Your task to perform on an android device: Open CNN.com Image 0: 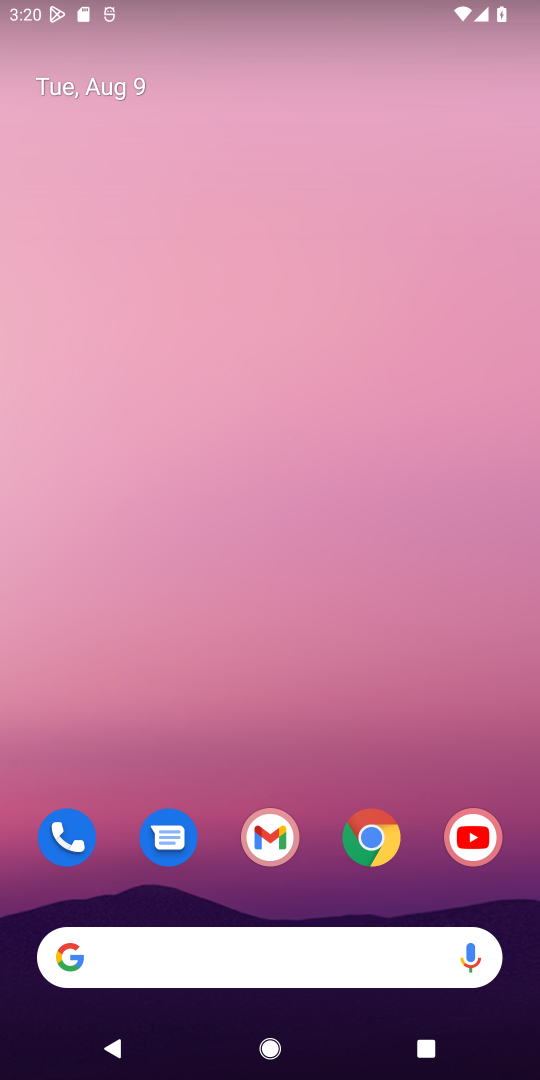
Step 0: drag from (265, 792) to (274, 109)
Your task to perform on an android device: Open CNN.com Image 1: 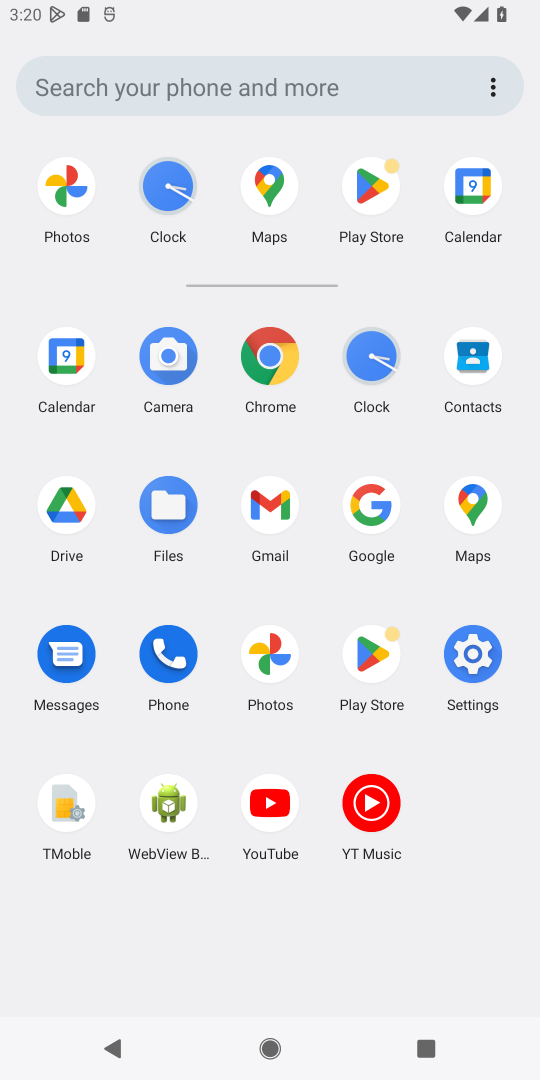
Step 1: click (251, 368)
Your task to perform on an android device: Open CNN.com Image 2: 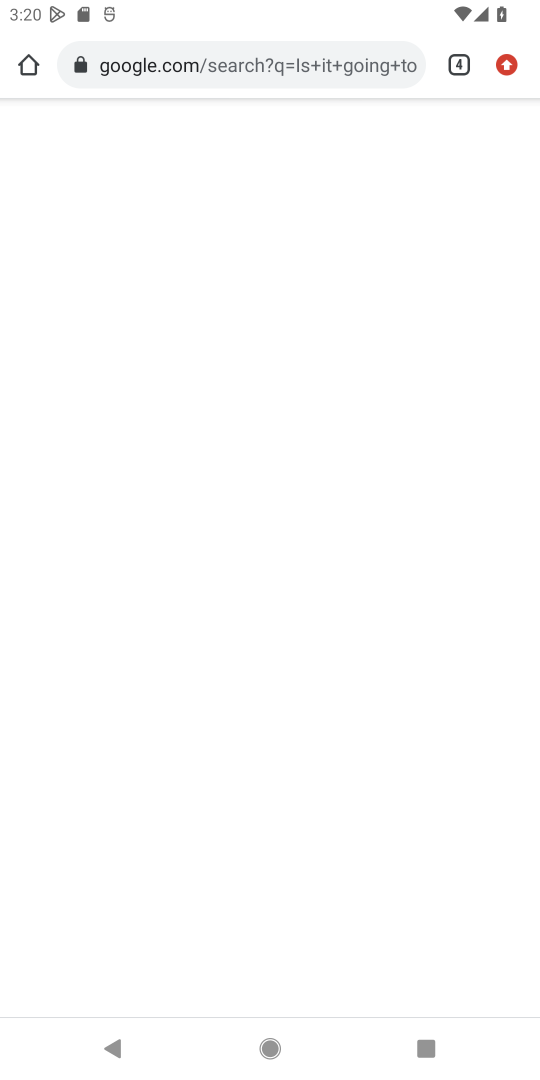
Step 2: click (506, 51)
Your task to perform on an android device: Open CNN.com Image 3: 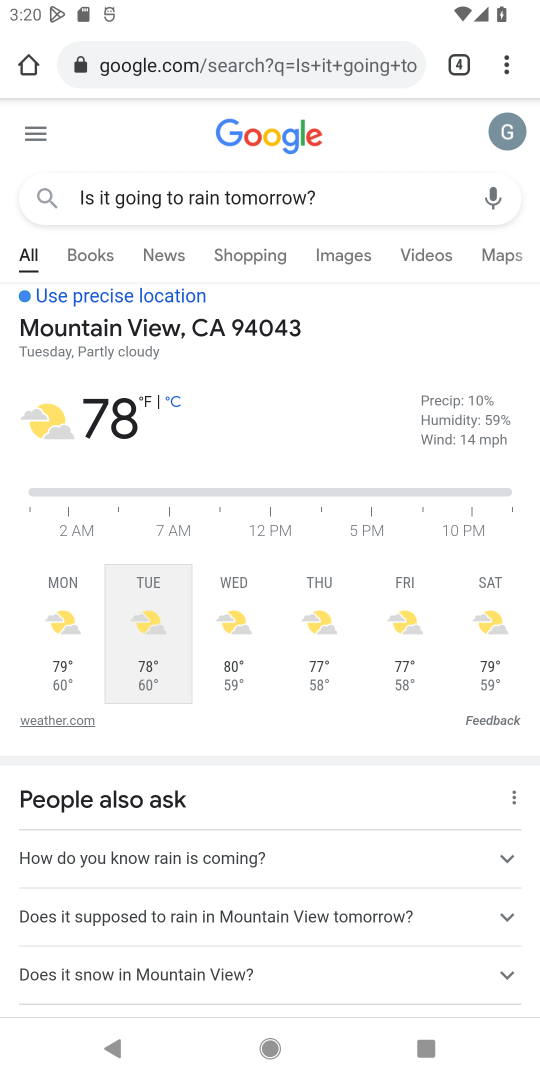
Step 3: click (503, 64)
Your task to perform on an android device: Open CNN.com Image 4: 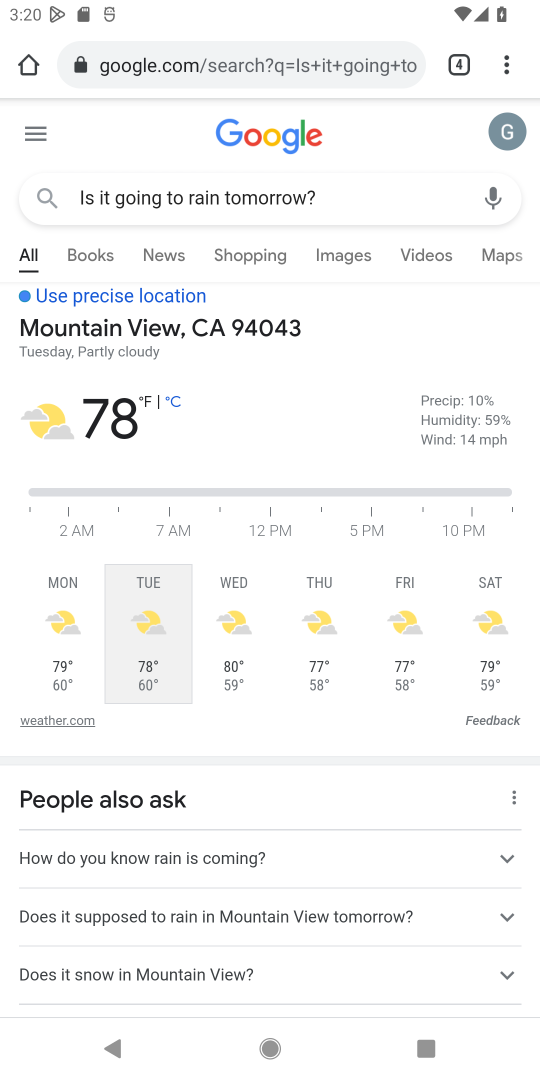
Step 4: click (509, 64)
Your task to perform on an android device: Open CNN.com Image 5: 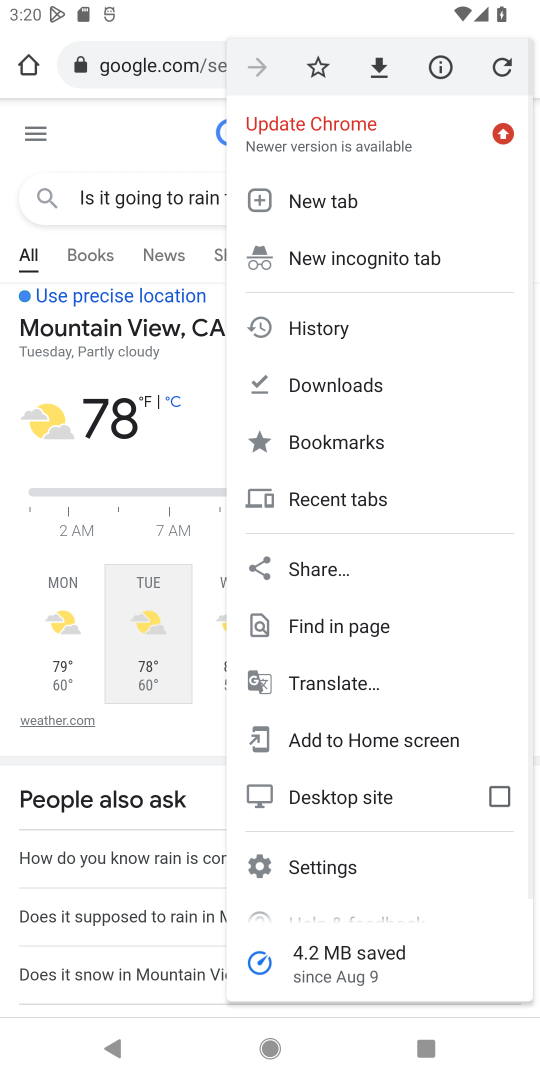
Step 5: click (331, 188)
Your task to perform on an android device: Open CNN.com Image 6: 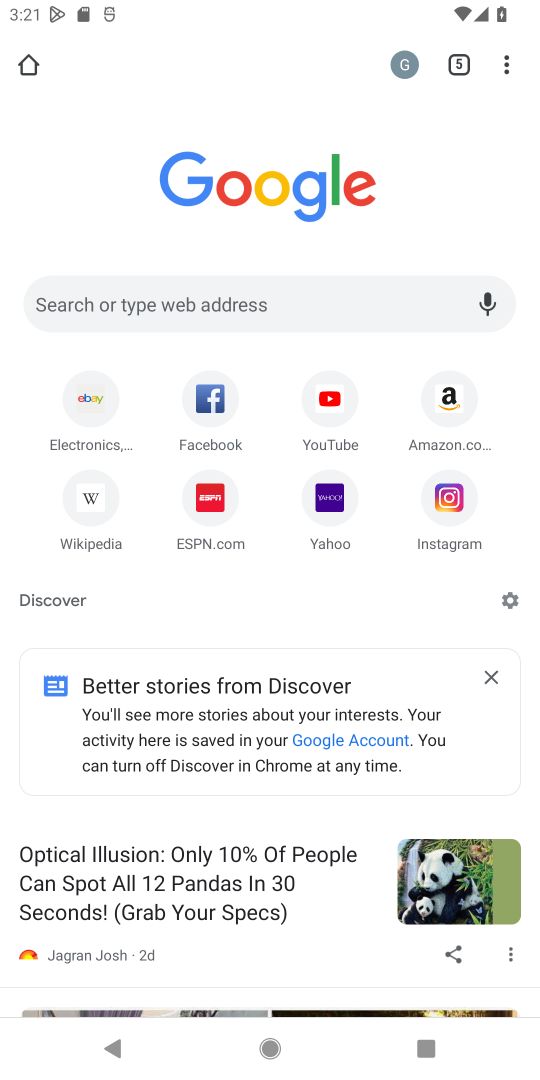
Step 6: click (282, 288)
Your task to perform on an android device: Open CNN.com Image 7: 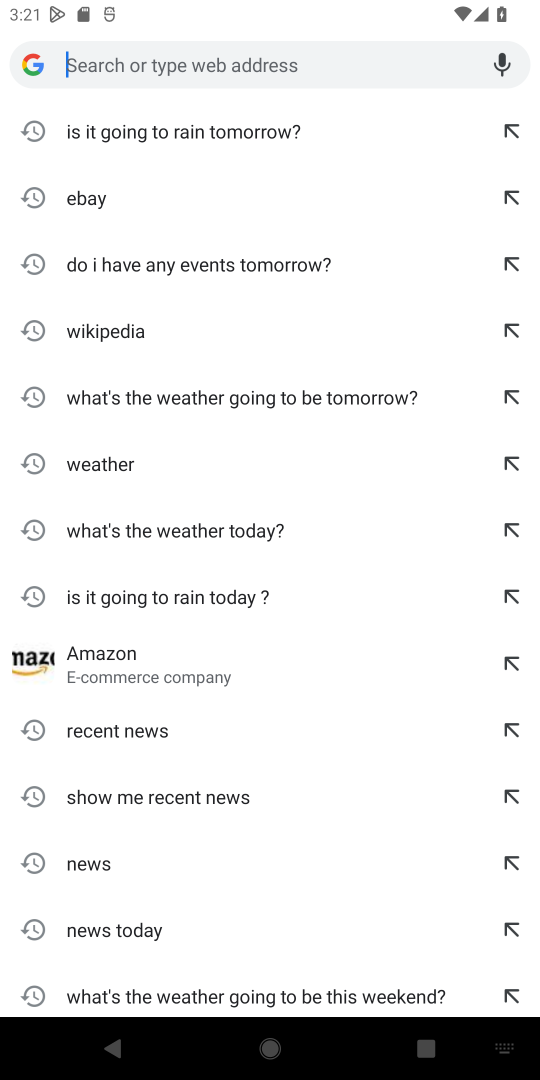
Step 7: type "CNN.com "
Your task to perform on an android device: Open CNN.com Image 8: 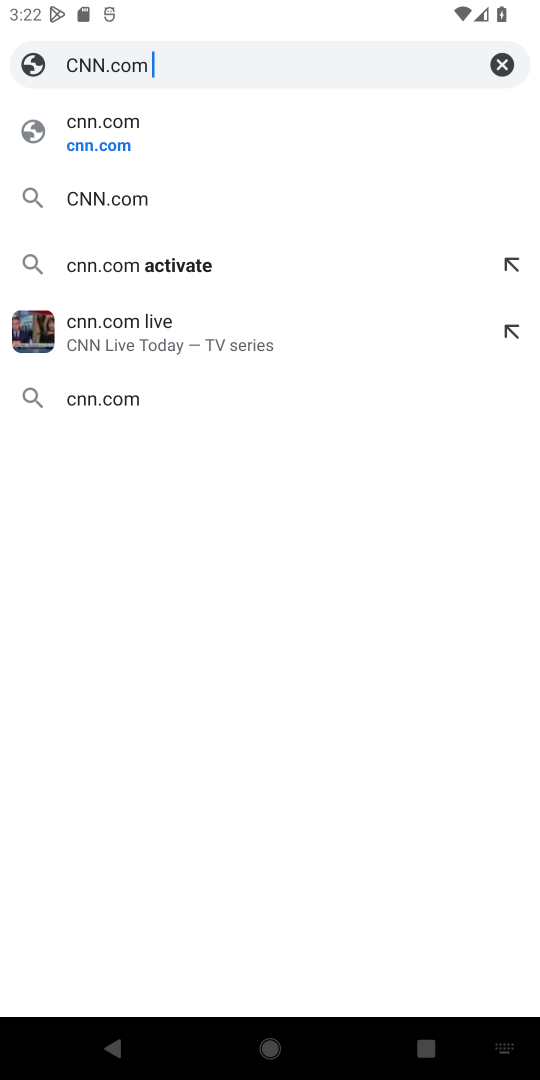
Step 8: click (100, 131)
Your task to perform on an android device: Open CNN.com Image 9: 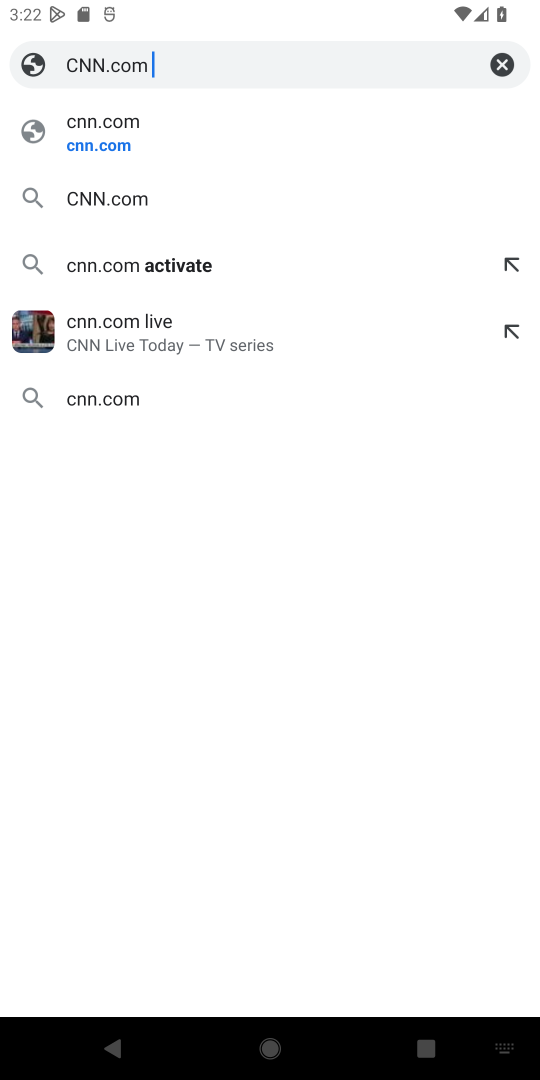
Step 9: click (129, 128)
Your task to perform on an android device: Open CNN.com Image 10: 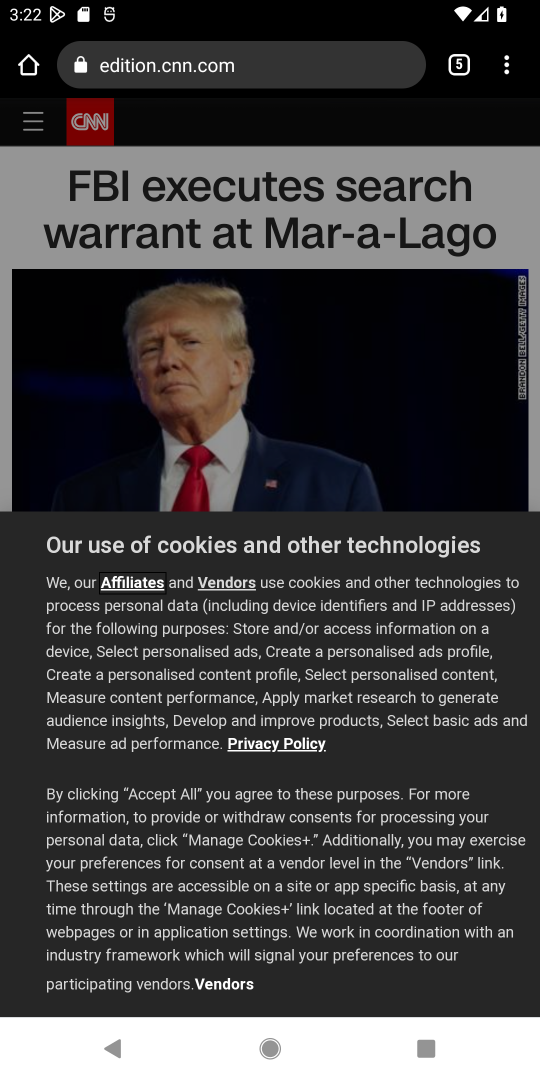
Step 10: task complete